Your task to perform on an android device: Open notification settings Image 0: 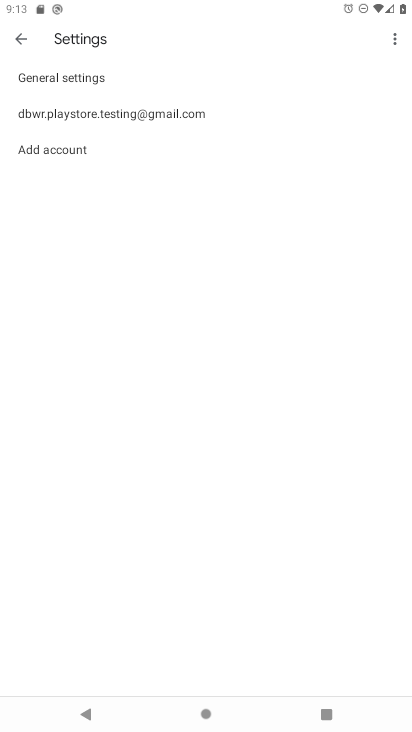
Step 0: press home button
Your task to perform on an android device: Open notification settings Image 1: 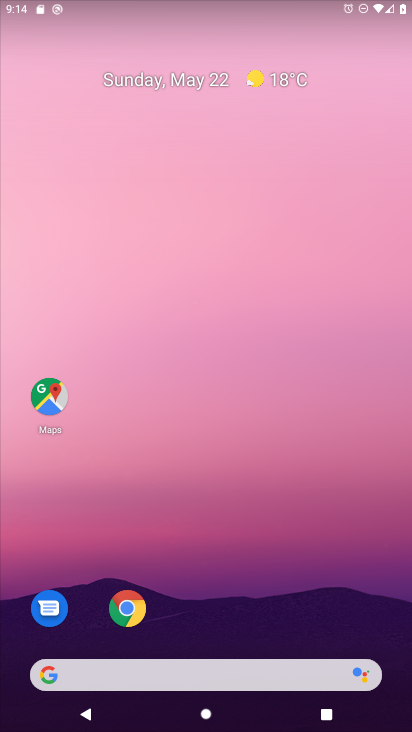
Step 1: drag from (182, 726) to (183, 86)
Your task to perform on an android device: Open notification settings Image 2: 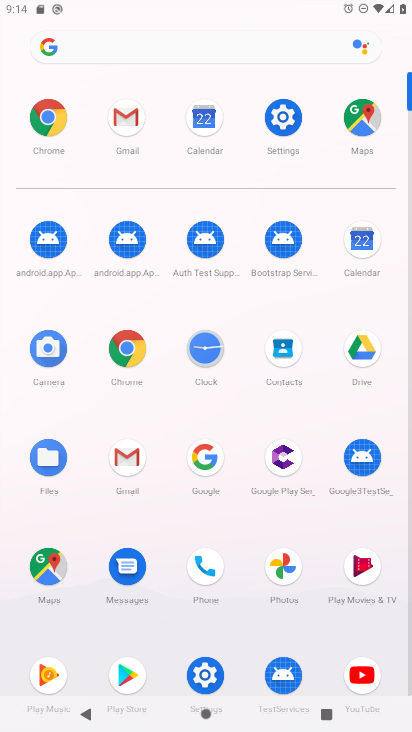
Step 2: click (278, 125)
Your task to perform on an android device: Open notification settings Image 3: 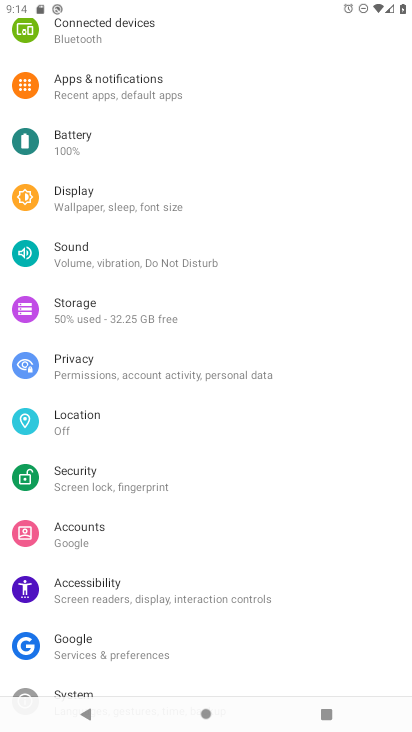
Step 3: click (98, 85)
Your task to perform on an android device: Open notification settings Image 4: 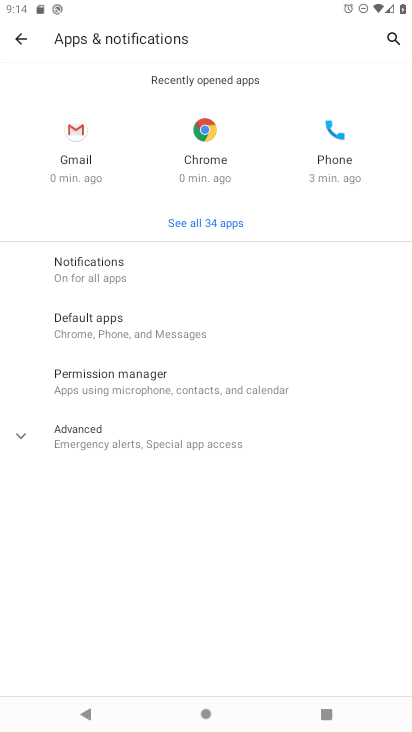
Step 4: click (80, 266)
Your task to perform on an android device: Open notification settings Image 5: 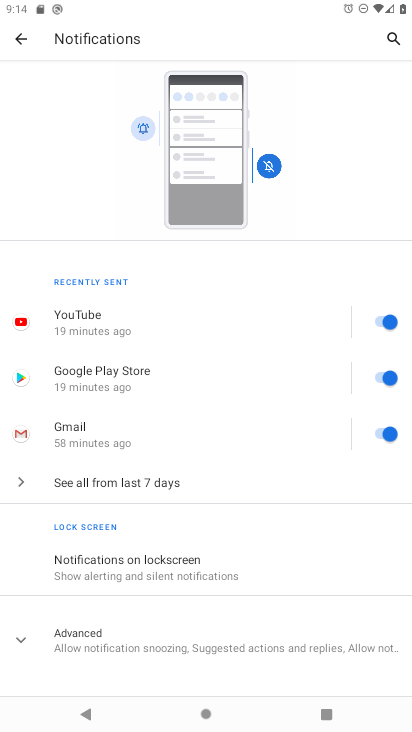
Step 5: task complete